Your task to perform on an android device: check the backup settings in the google photos Image 0: 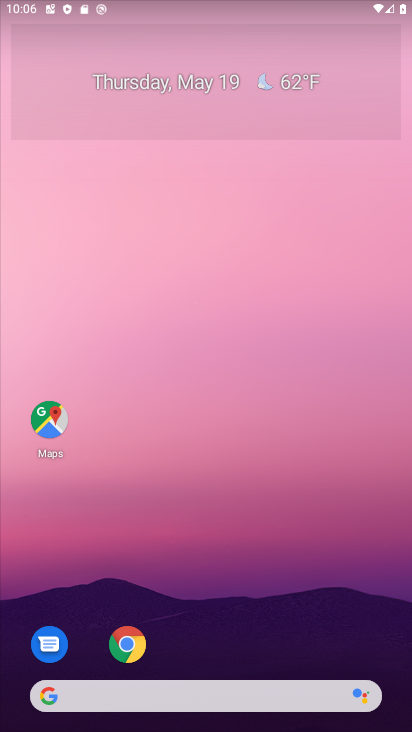
Step 0: click (34, 88)
Your task to perform on an android device: check the backup settings in the google photos Image 1: 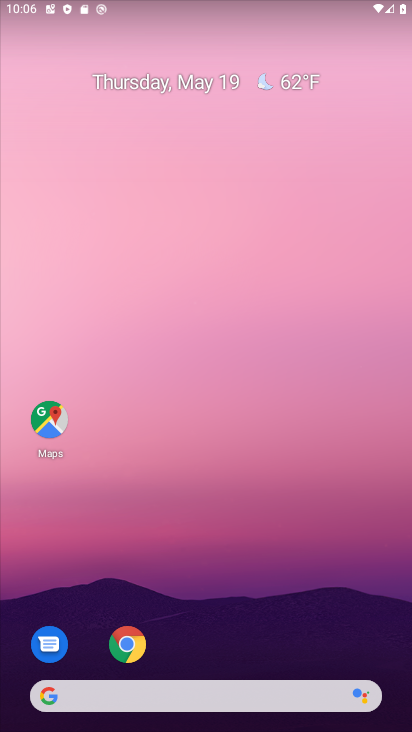
Step 1: drag from (358, 673) to (239, 8)
Your task to perform on an android device: check the backup settings in the google photos Image 2: 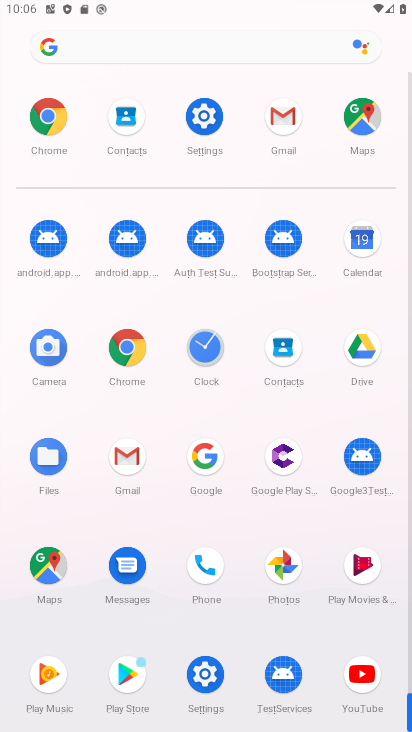
Step 2: click (286, 568)
Your task to perform on an android device: check the backup settings in the google photos Image 3: 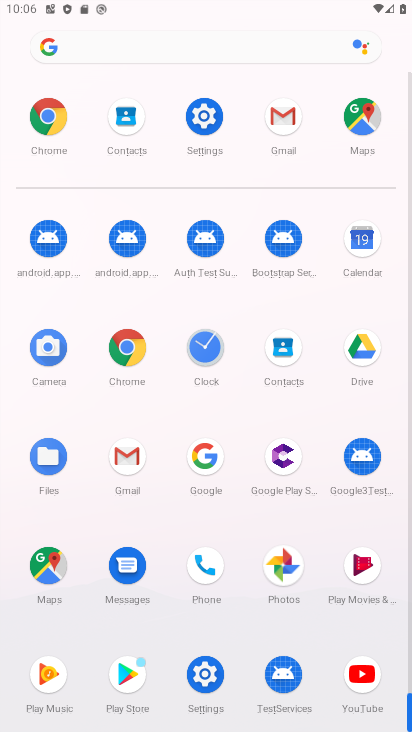
Step 3: click (287, 567)
Your task to perform on an android device: check the backup settings in the google photos Image 4: 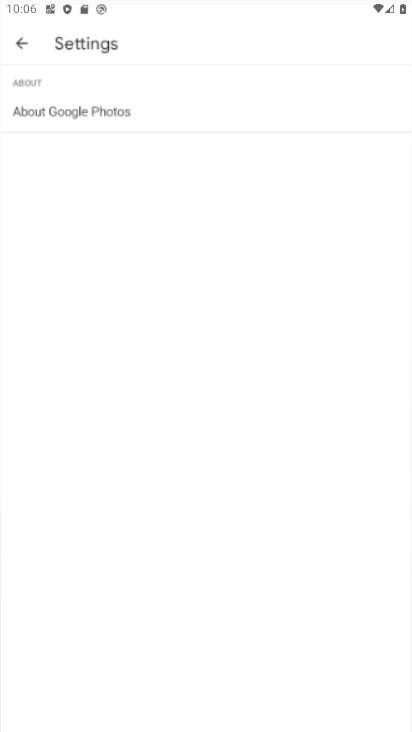
Step 4: click (287, 567)
Your task to perform on an android device: check the backup settings in the google photos Image 5: 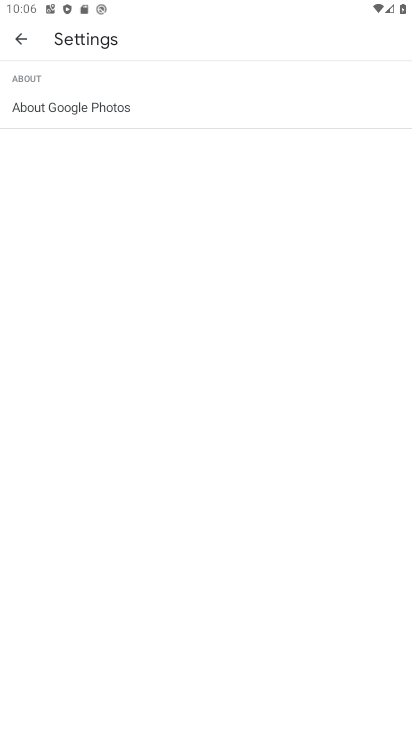
Step 5: click (14, 35)
Your task to perform on an android device: check the backup settings in the google photos Image 6: 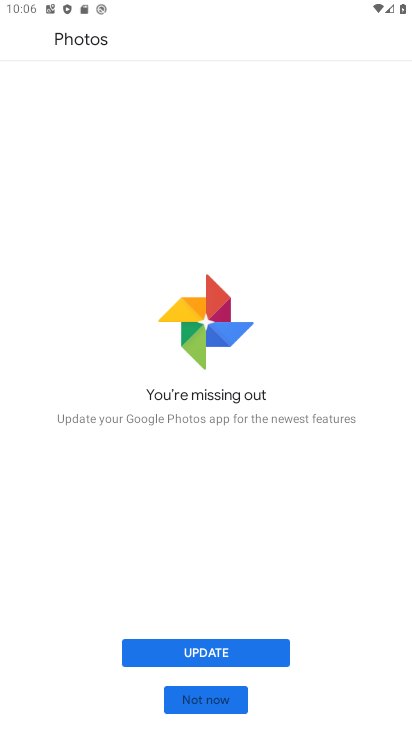
Step 6: click (203, 649)
Your task to perform on an android device: check the backup settings in the google photos Image 7: 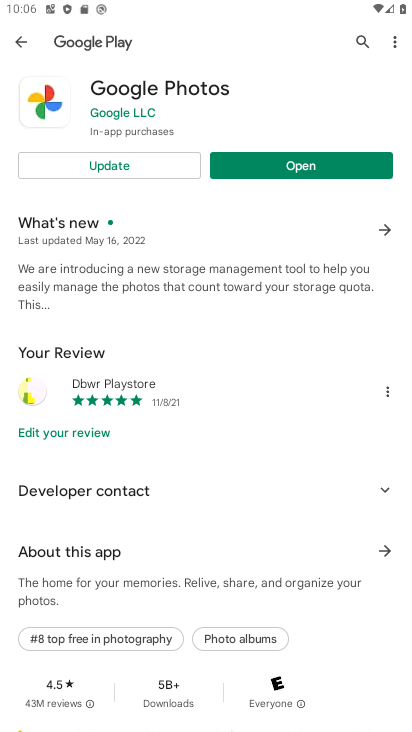
Step 7: click (120, 158)
Your task to perform on an android device: check the backup settings in the google photos Image 8: 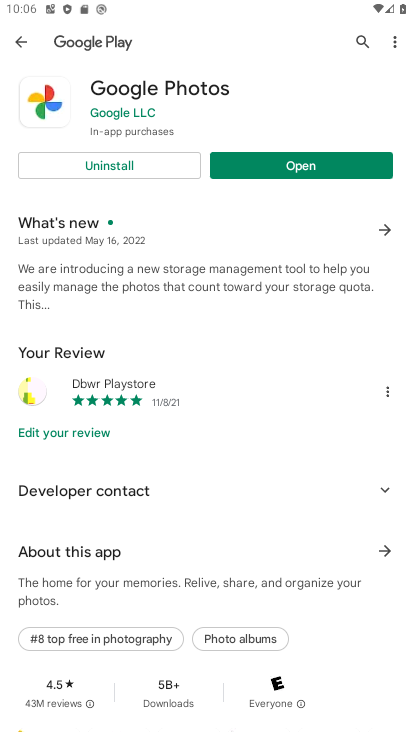
Step 8: click (307, 161)
Your task to perform on an android device: check the backup settings in the google photos Image 9: 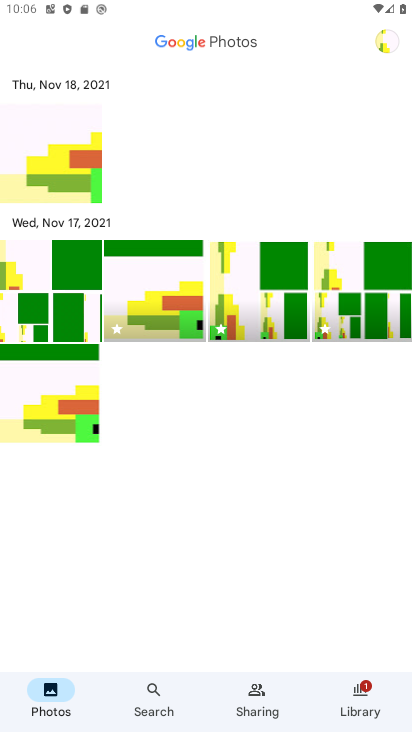
Step 9: task complete